Your task to perform on an android device: toggle priority inbox in the gmail app Image 0: 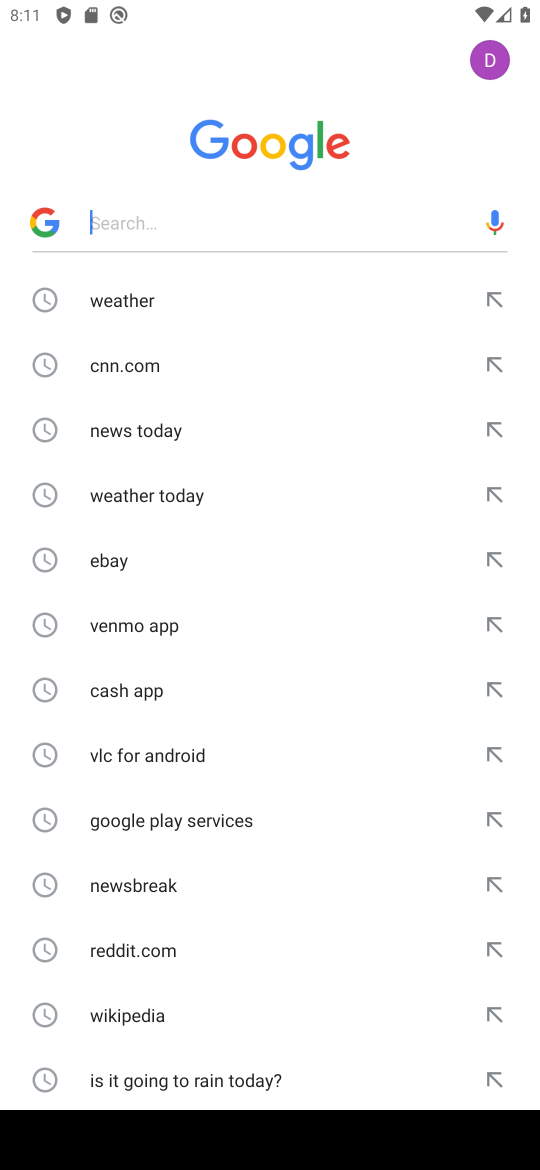
Step 0: press back button
Your task to perform on an android device: toggle priority inbox in the gmail app Image 1: 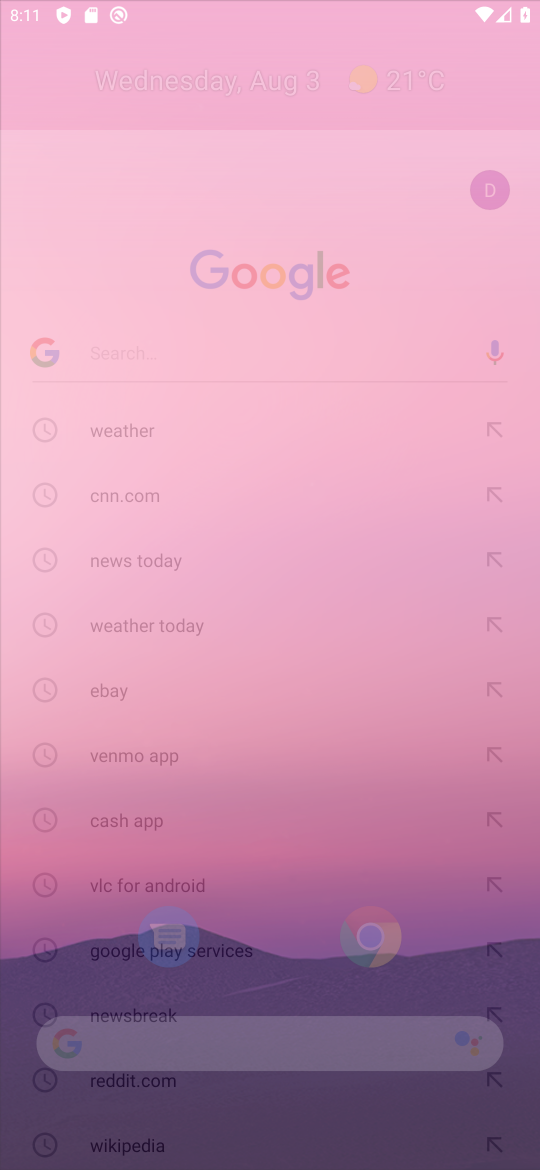
Step 1: press back button
Your task to perform on an android device: toggle priority inbox in the gmail app Image 2: 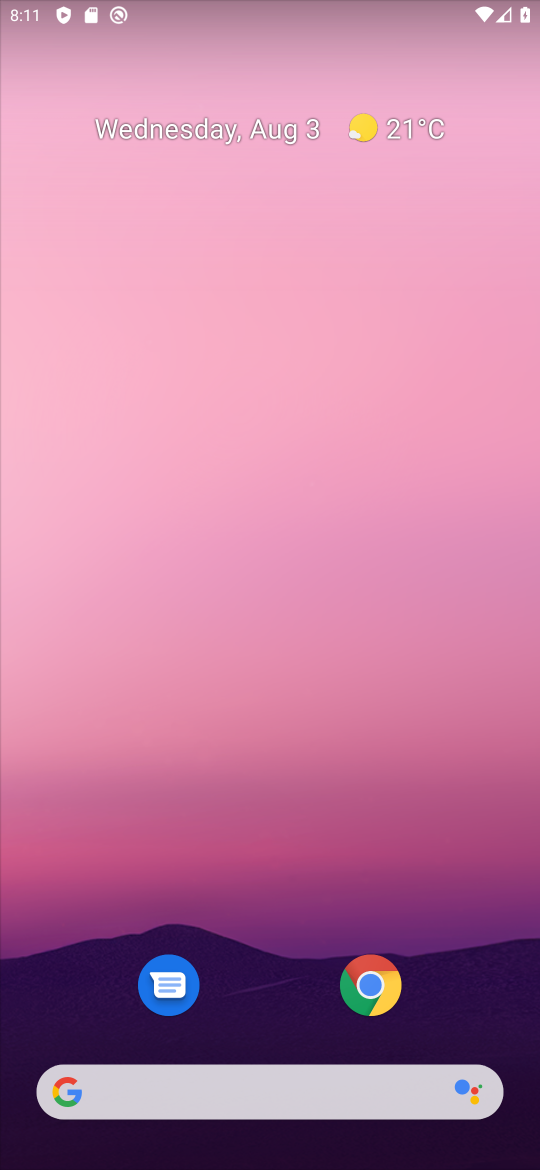
Step 2: drag from (253, 841) to (253, 96)
Your task to perform on an android device: toggle priority inbox in the gmail app Image 3: 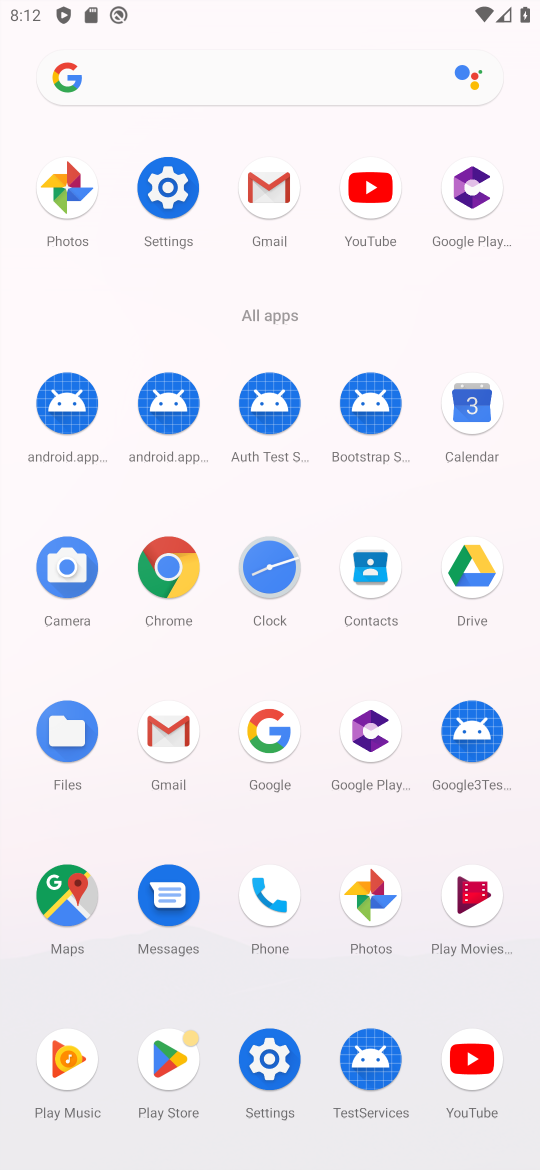
Step 3: click (275, 183)
Your task to perform on an android device: toggle priority inbox in the gmail app Image 4: 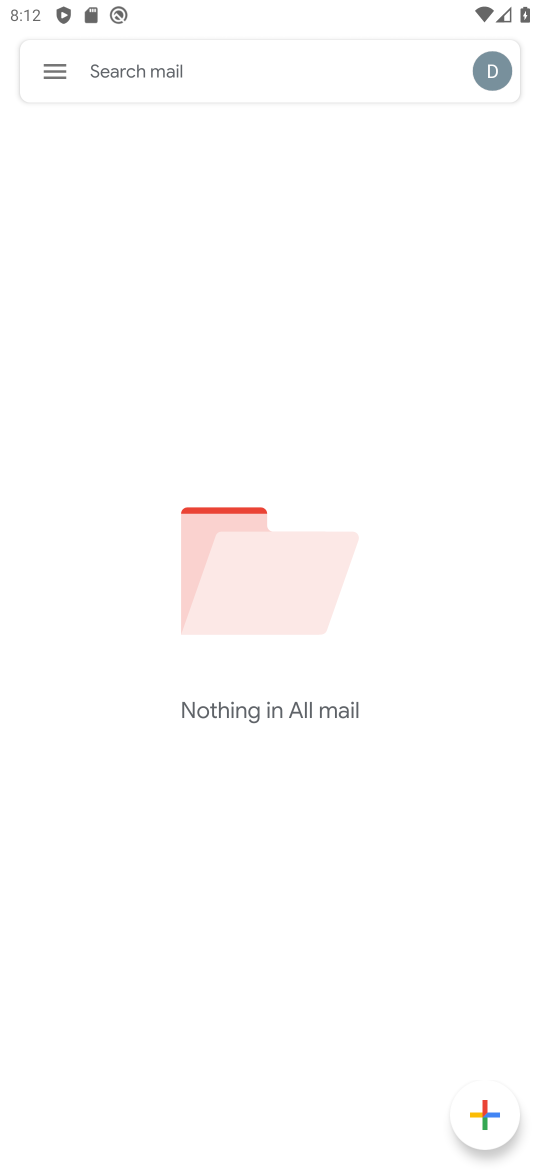
Step 4: click (76, 69)
Your task to perform on an android device: toggle priority inbox in the gmail app Image 5: 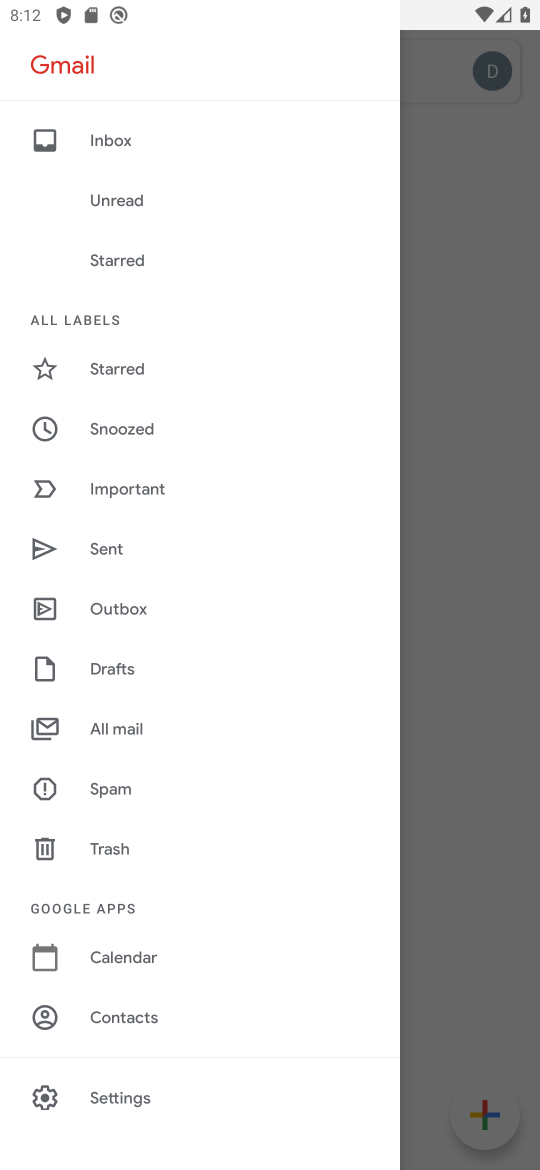
Step 5: click (142, 1100)
Your task to perform on an android device: toggle priority inbox in the gmail app Image 6: 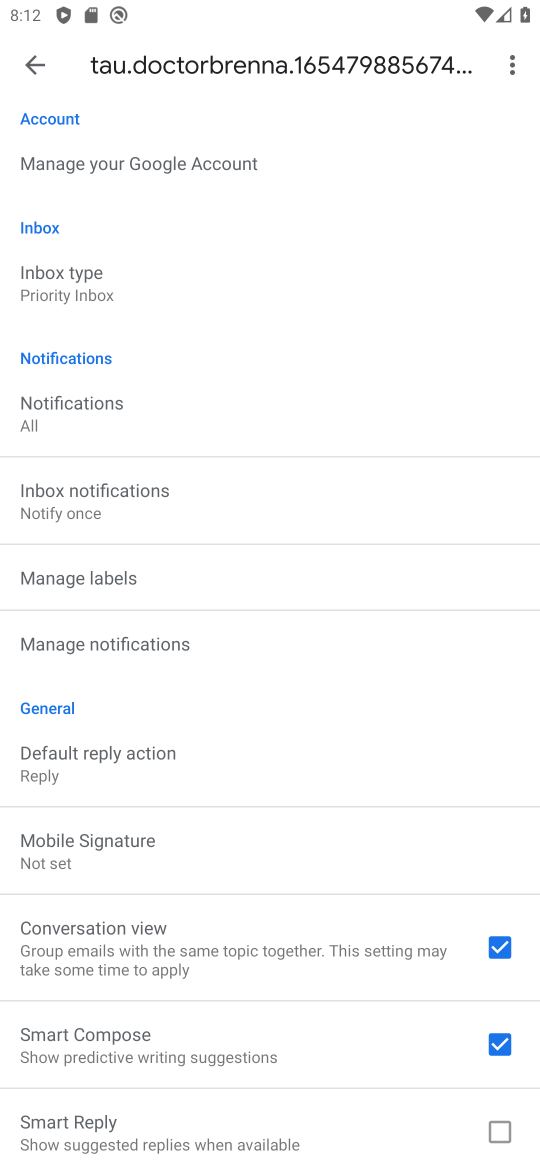
Step 6: click (166, 295)
Your task to perform on an android device: toggle priority inbox in the gmail app Image 7: 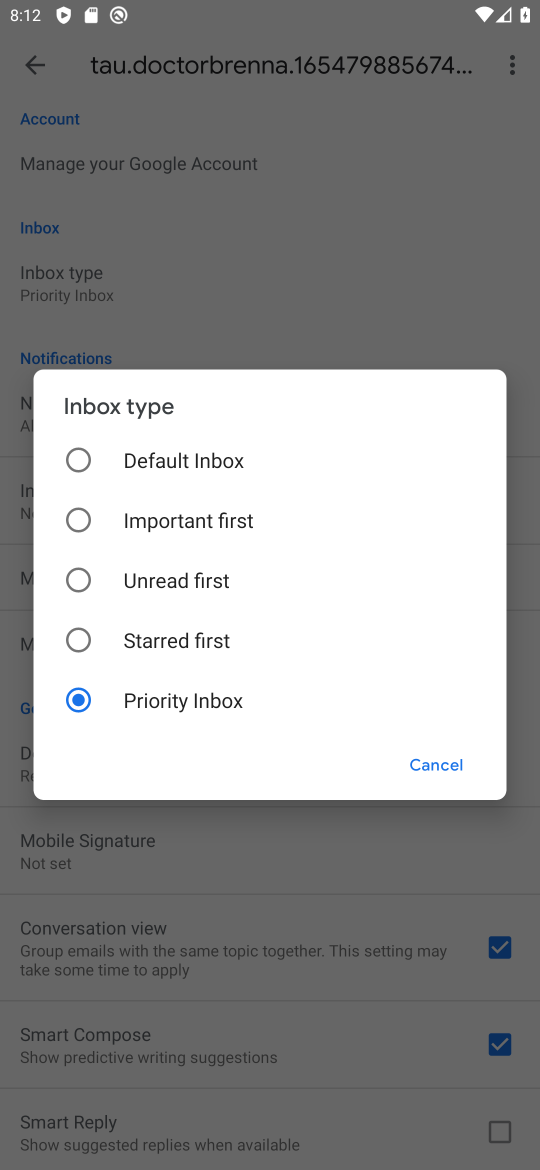
Step 7: click (196, 452)
Your task to perform on an android device: toggle priority inbox in the gmail app Image 8: 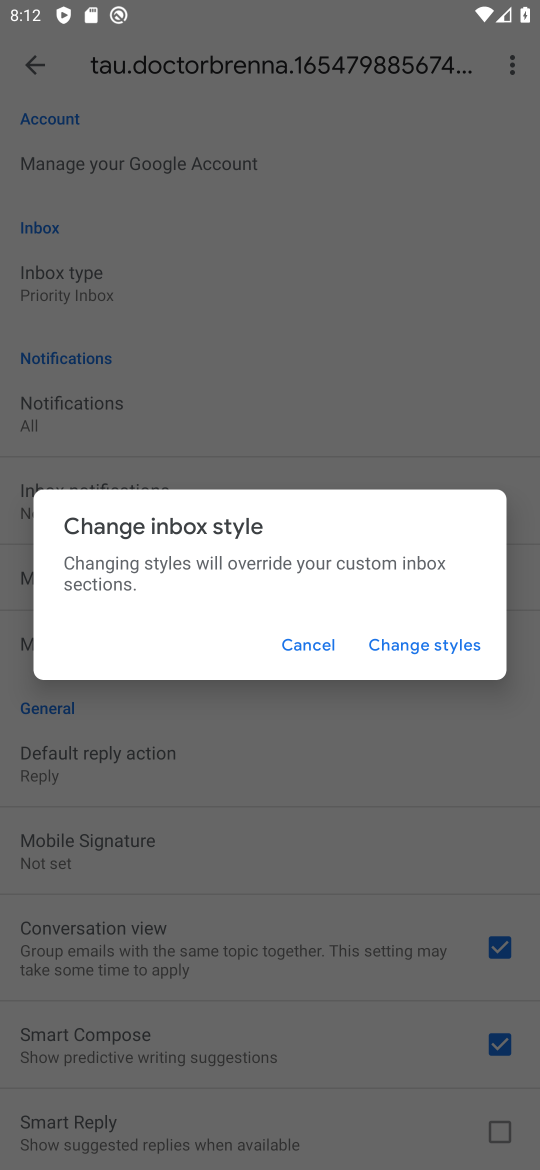
Step 8: click (394, 630)
Your task to perform on an android device: toggle priority inbox in the gmail app Image 9: 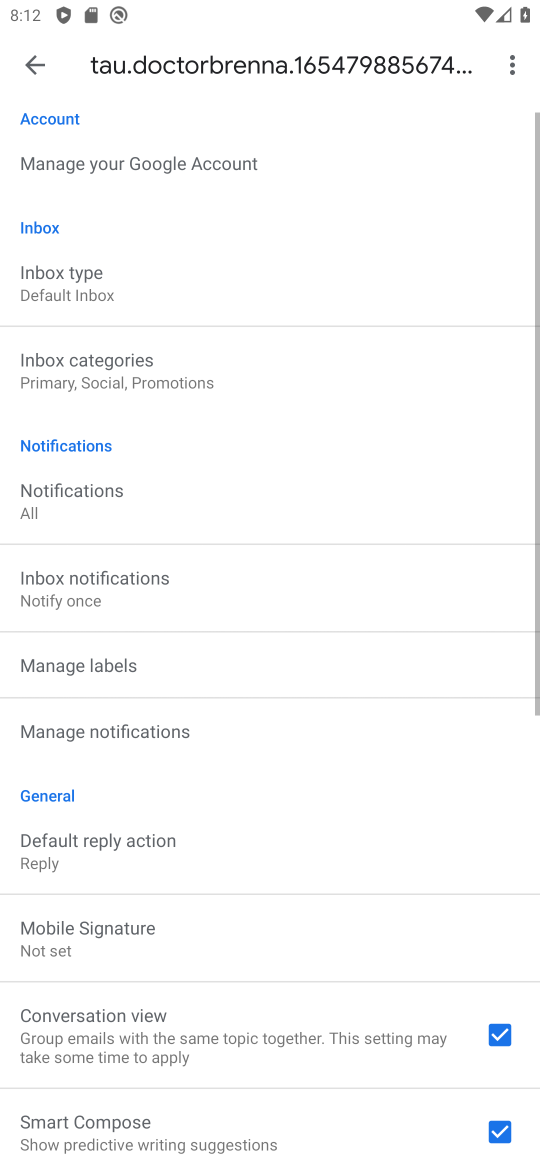
Step 9: task complete